Your task to perform on an android device: toggle sleep mode Image 0: 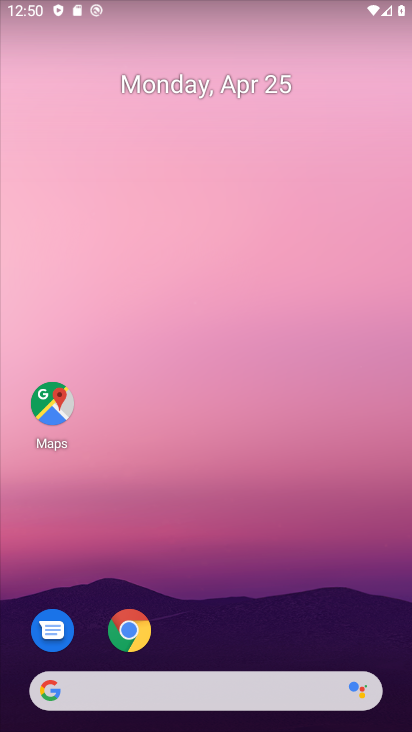
Step 0: drag from (167, 655) to (239, 84)
Your task to perform on an android device: toggle sleep mode Image 1: 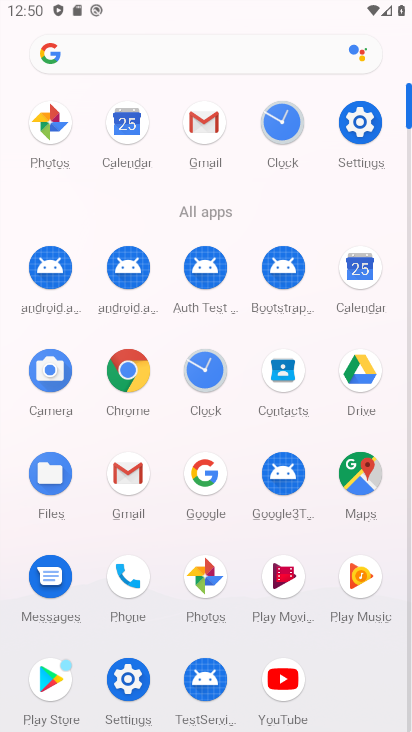
Step 1: click (123, 686)
Your task to perform on an android device: toggle sleep mode Image 2: 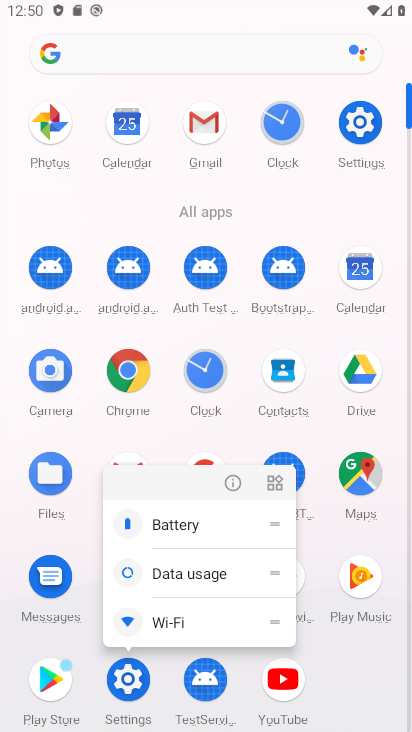
Step 2: click (116, 686)
Your task to perform on an android device: toggle sleep mode Image 3: 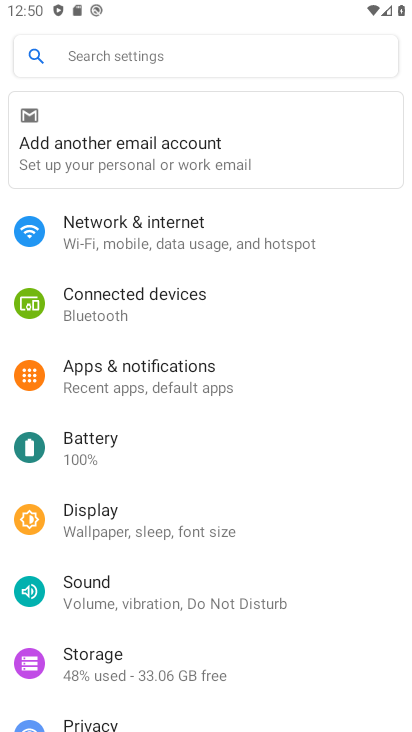
Step 3: click (170, 523)
Your task to perform on an android device: toggle sleep mode Image 4: 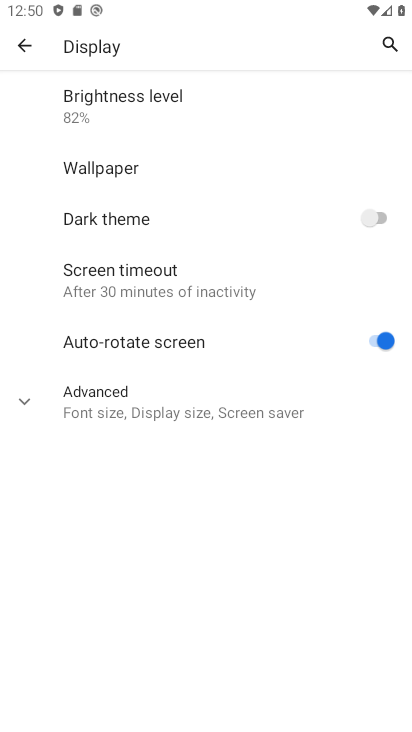
Step 4: click (179, 408)
Your task to perform on an android device: toggle sleep mode Image 5: 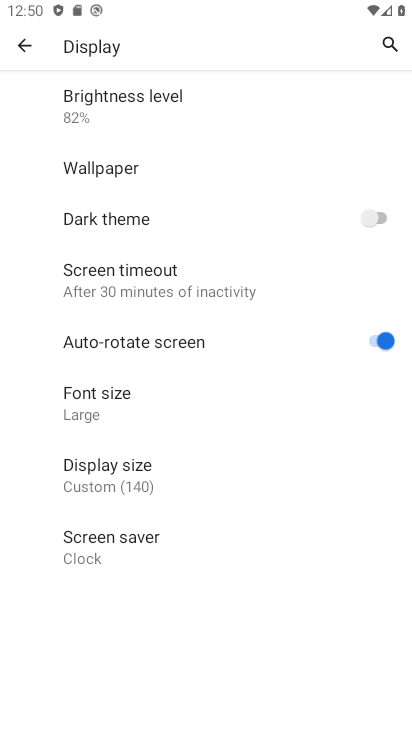
Step 5: task complete